Your task to perform on an android device: Open the Play Movies app and select the watchlist tab. Image 0: 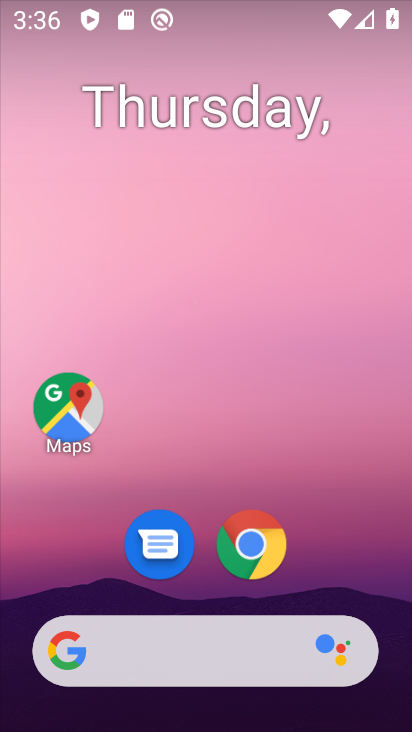
Step 0: drag from (310, 590) to (359, 33)
Your task to perform on an android device: Open the Play Movies app and select the watchlist tab. Image 1: 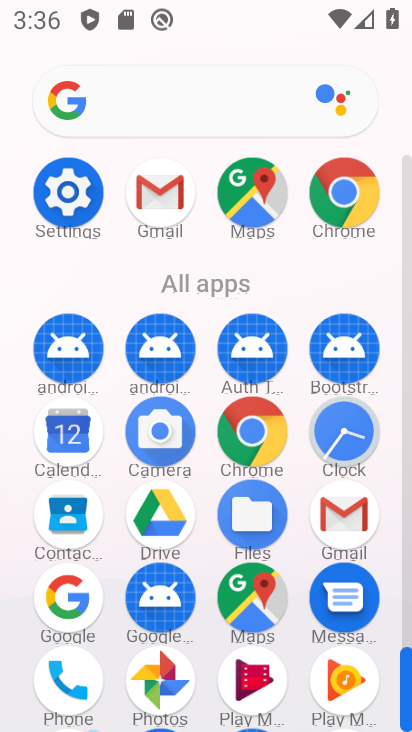
Step 1: click (60, 685)
Your task to perform on an android device: Open the Play Movies app and select the watchlist tab. Image 2: 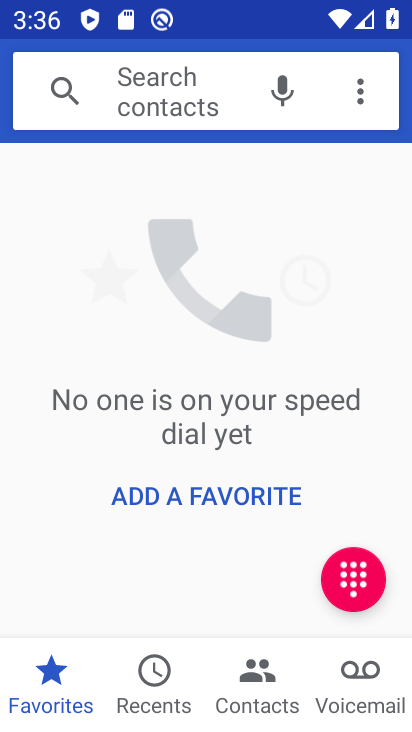
Step 2: click (352, 697)
Your task to perform on an android device: Open the Play Movies app and select the watchlist tab. Image 3: 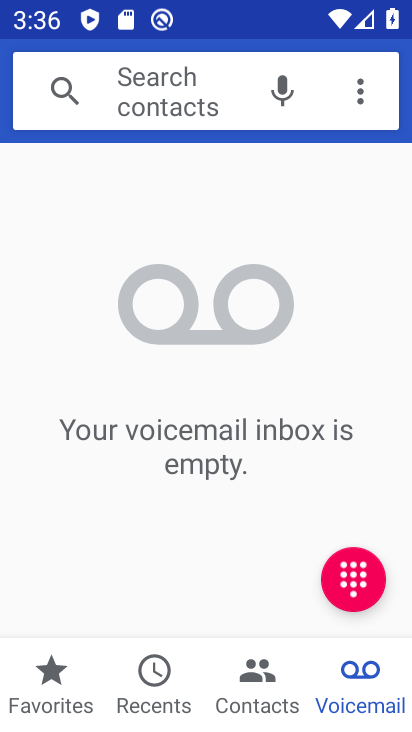
Step 3: task complete